Your task to perform on an android device: turn off wifi Image 0: 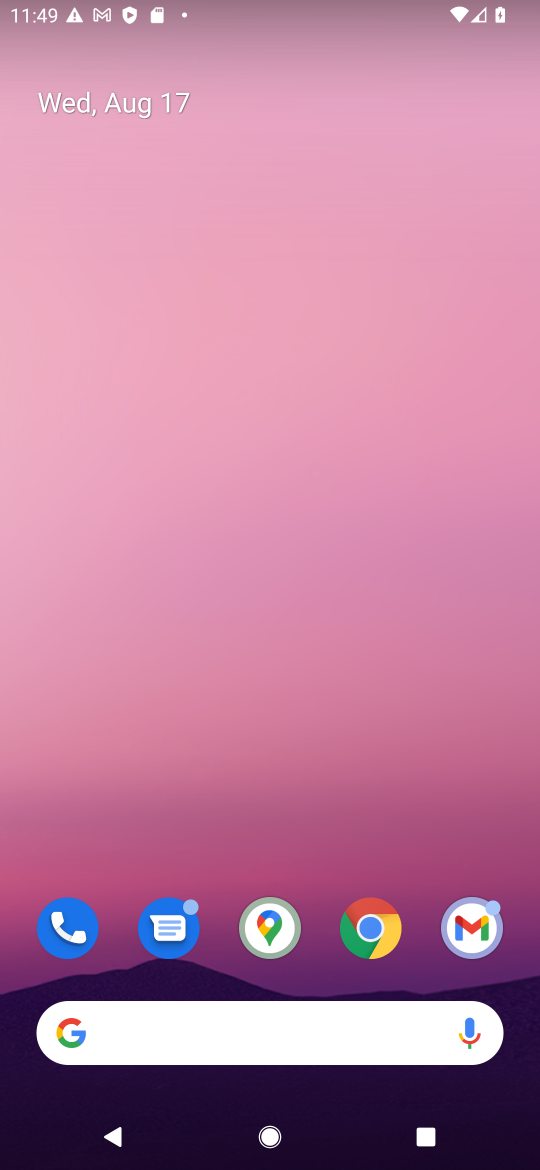
Step 0: drag from (264, 843) to (245, 269)
Your task to perform on an android device: turn off wifi Image 1: 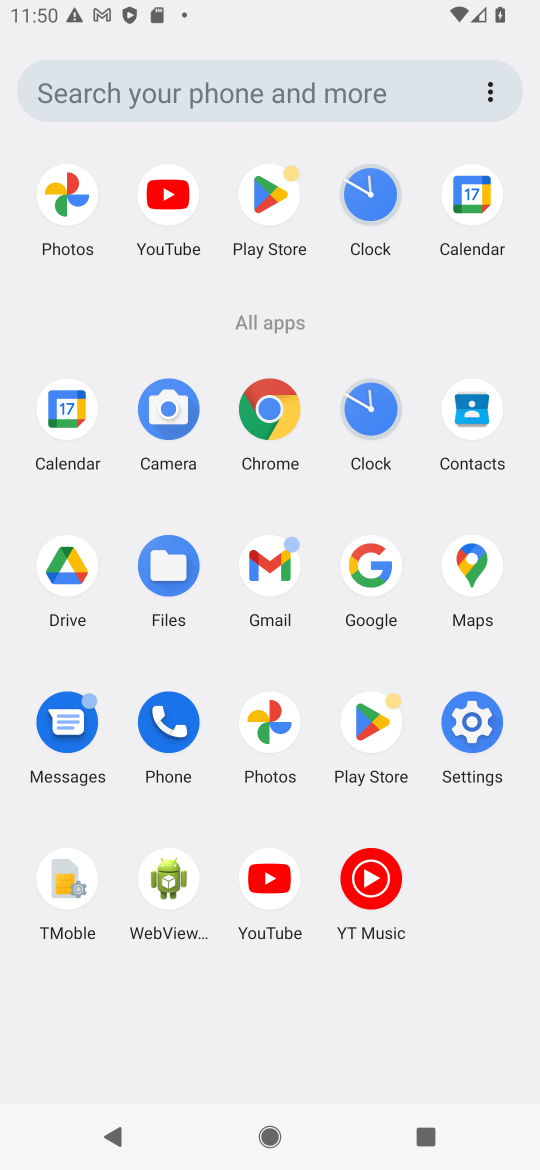
Step 1: click (455, 716)
Your task to perform on an android device: turn off wifi Image 2: 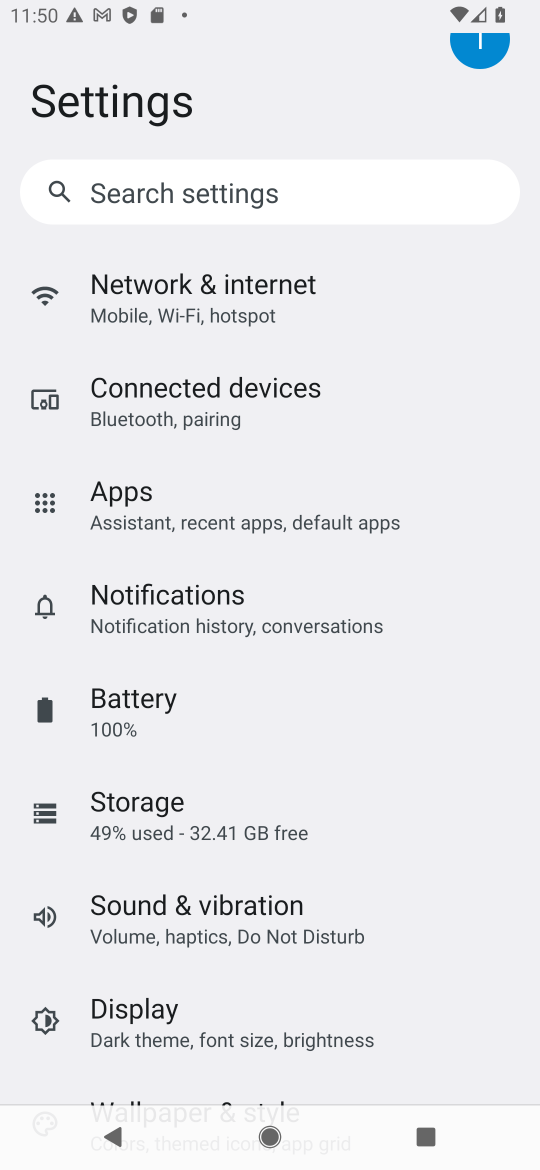
Step 2: click (231, 308)
Your task to perform on an android device: turn off wifi Image 3: 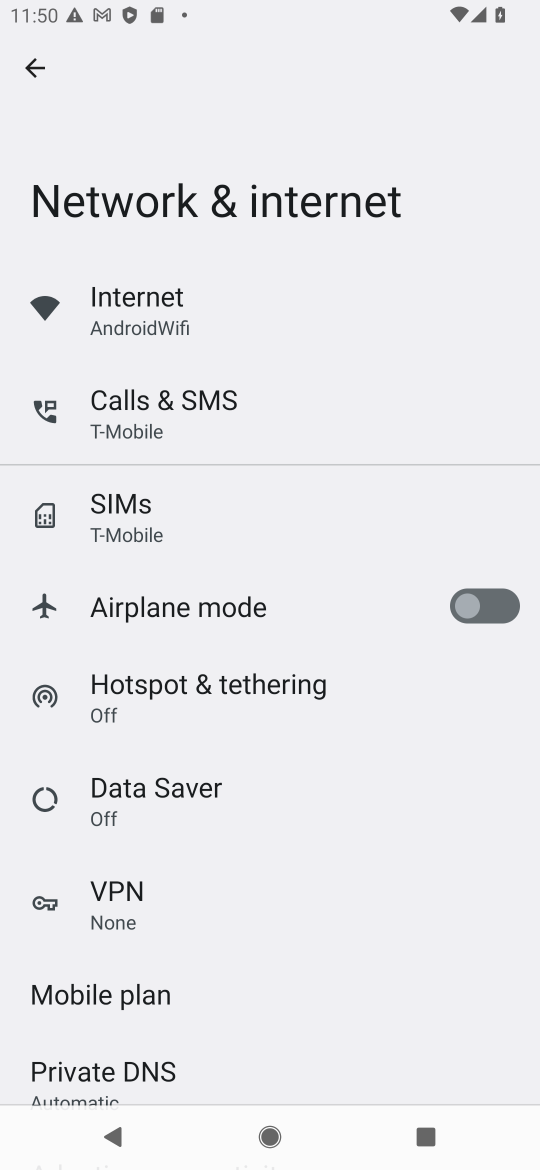
Step 3: click (231, 308)
Your task to perform on an android device: turn off wifi Image 4: 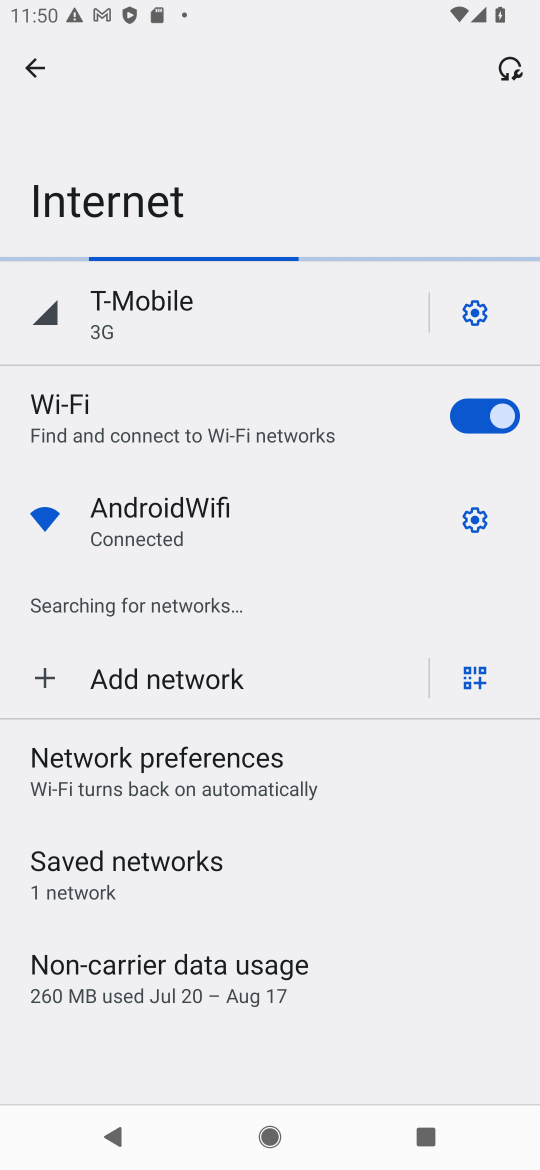
Step 4: click (475, 422)
Your task to perform on an android device: turn off wifi Image 5: 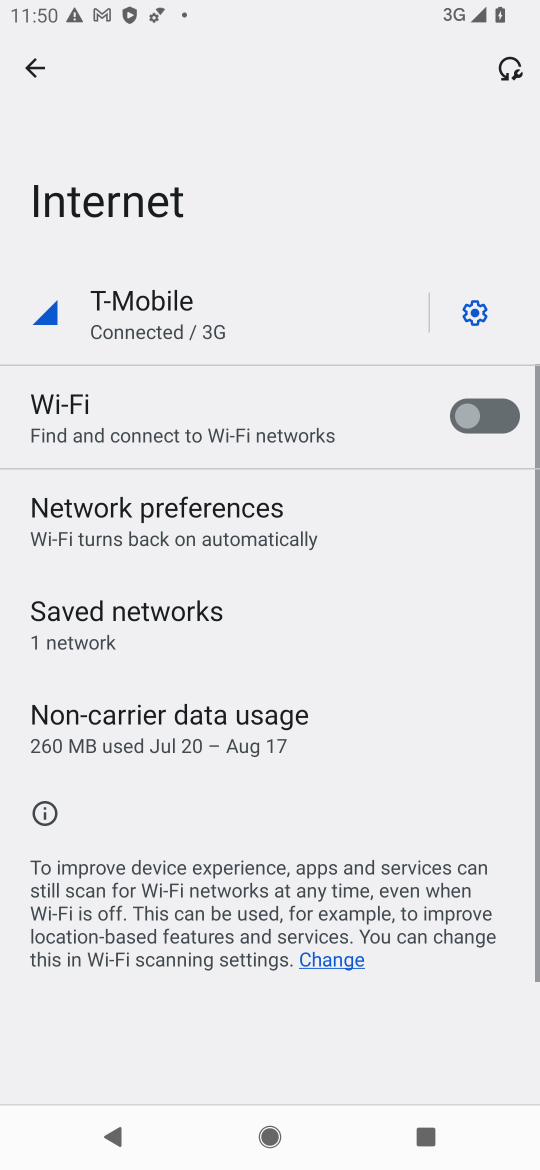
Step 5: task complete